Your task to perform on an android device: open a bookmark in the chrome app Image 0: 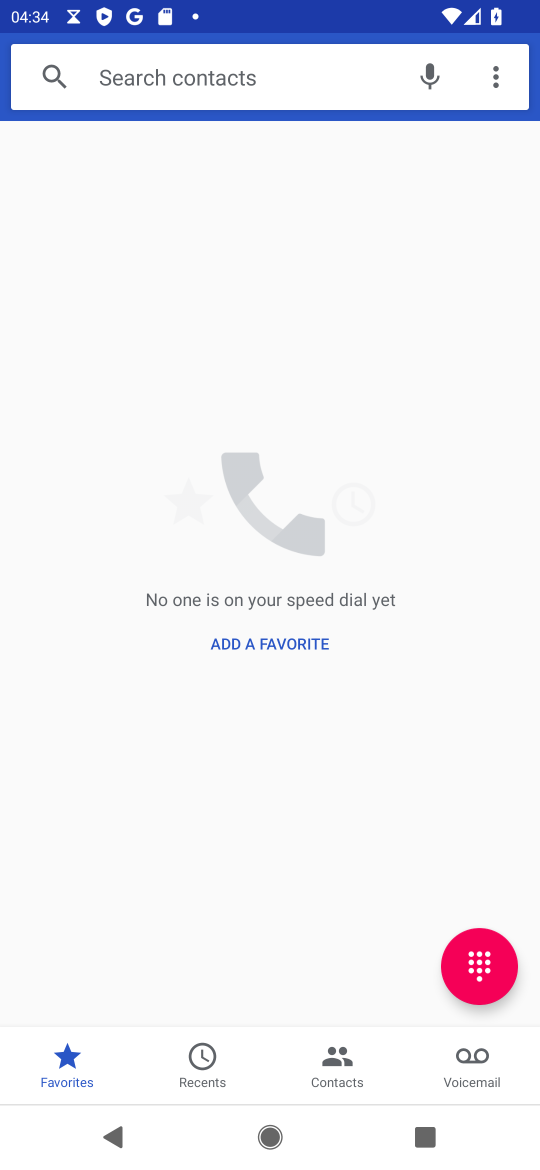
Step 0: press home button
Your task to perform on an android device: open a bookmark in the chrome app Image 1: 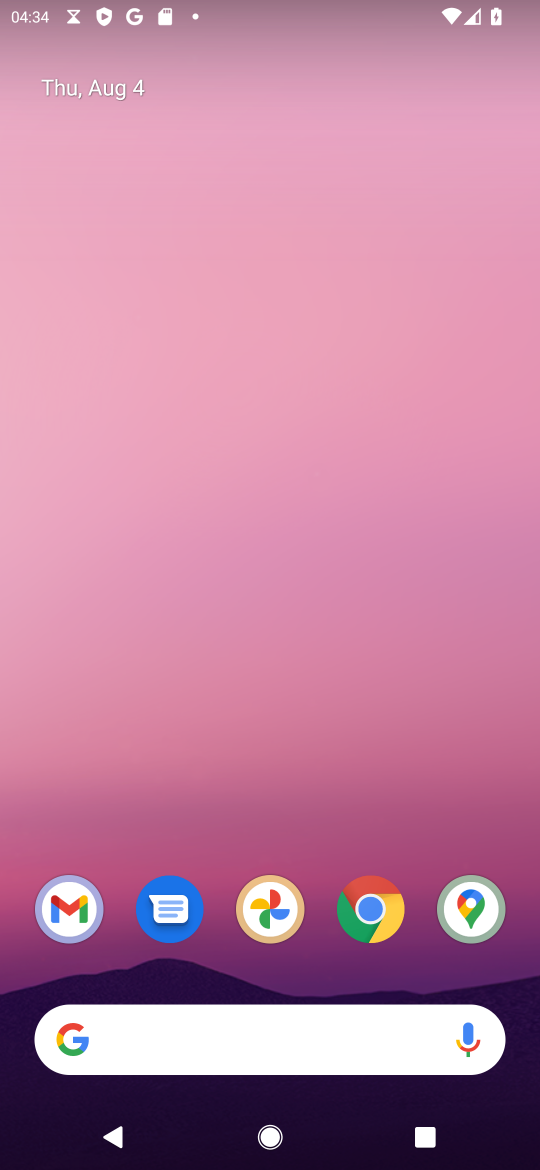
Step 1: click (371, 913)
Your task to perform on an android device: open a bookmark in the chrome app Image 2: 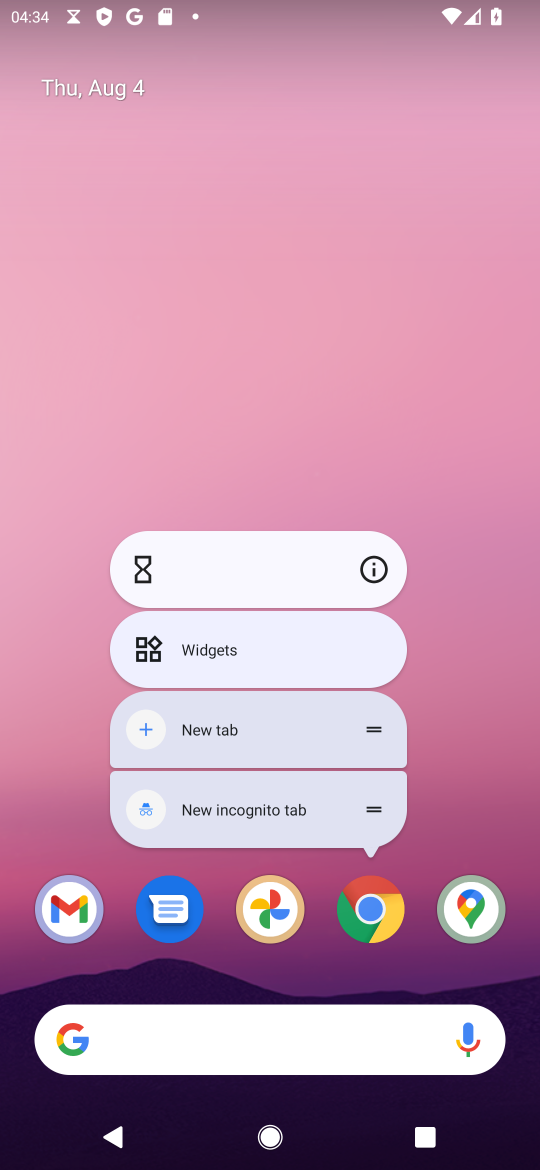
Step 2: click (371, 913)
Your task to perform on an android device: open a bookmark in the chrome app Image 3: 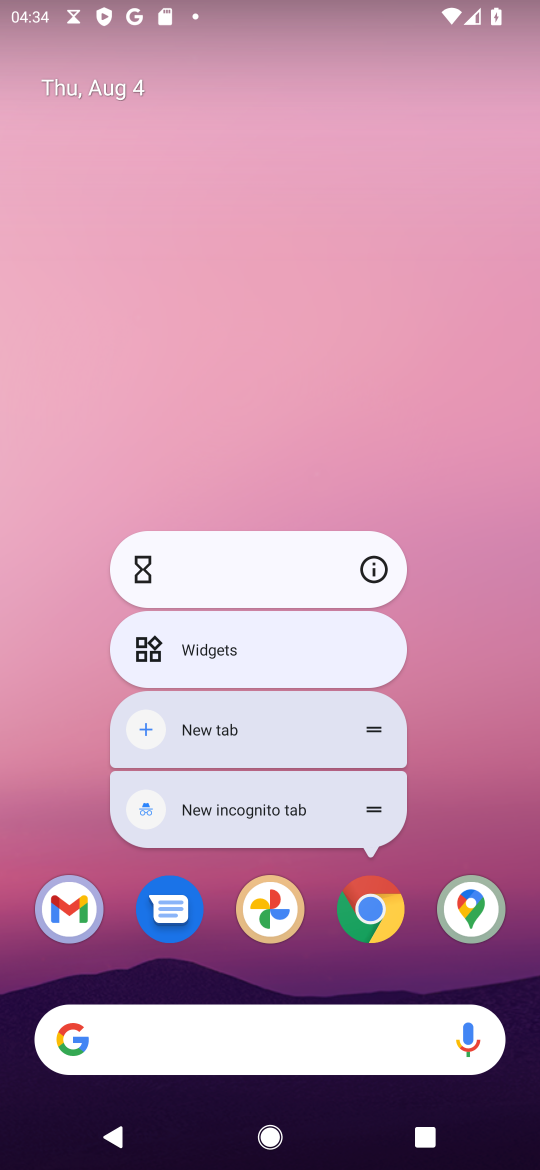
Step 3: click (371, 913)
Your task to perform on an android device: open a bookmark in the chrome app Image 4: 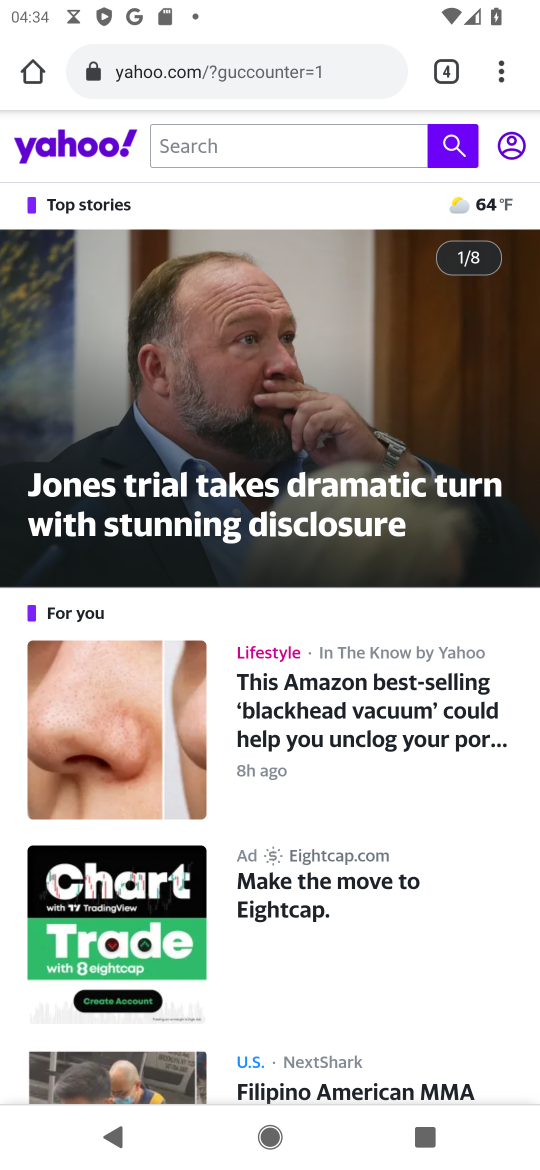
Step 4: task complete